Your task to perform on an android device: Open Amazon Image 0: 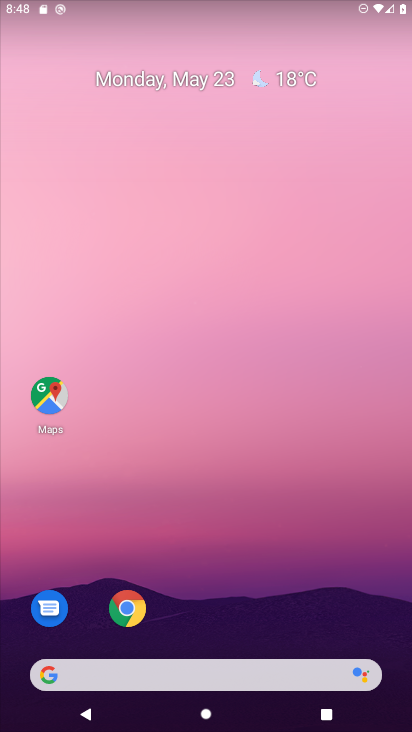
Step 0: click (127, 611)
Your task to perform on an android device: Open Amazon Image 1: 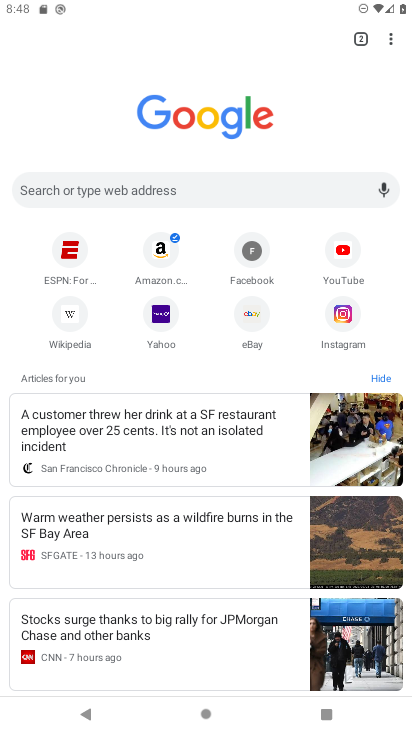
Step 1: click (160, 247)
Your task to perform on an android device: Open Amazon Image 2: 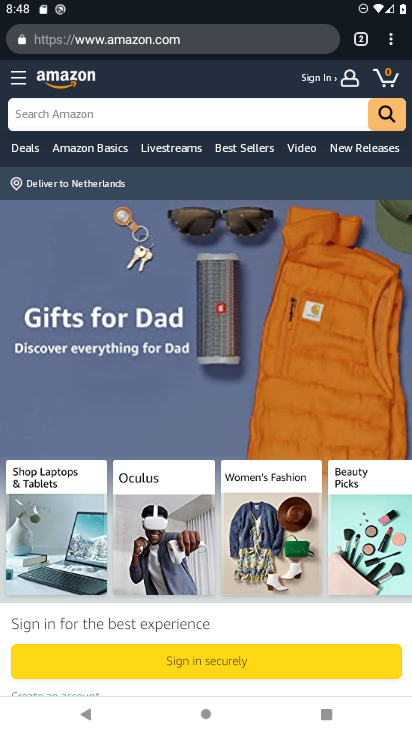
Step 2: task complete